Your task to perform on an android device: Check the news Image 0: 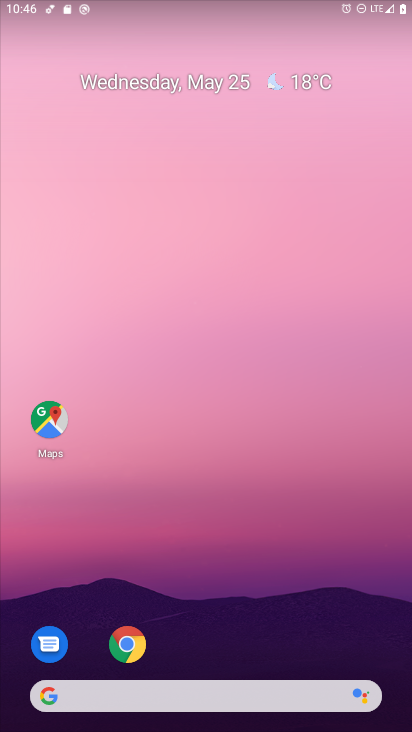
Step 0: press home button
Your task to perform on an android device: Check the news Image 1: 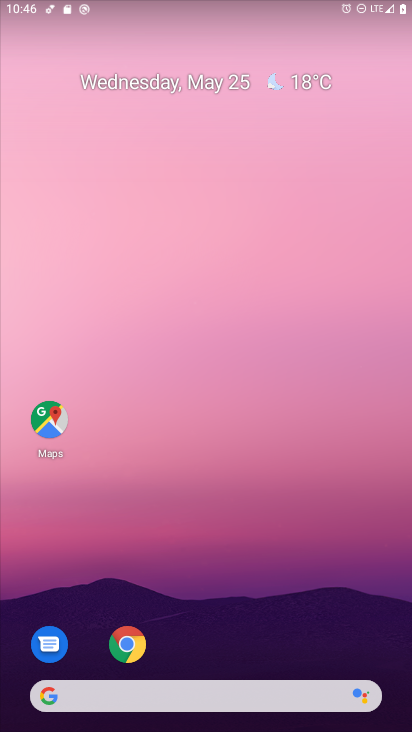
Step 1: task complete